Your task to perform on an android device: open app "Venmo" (install if not already installed) Image 0: 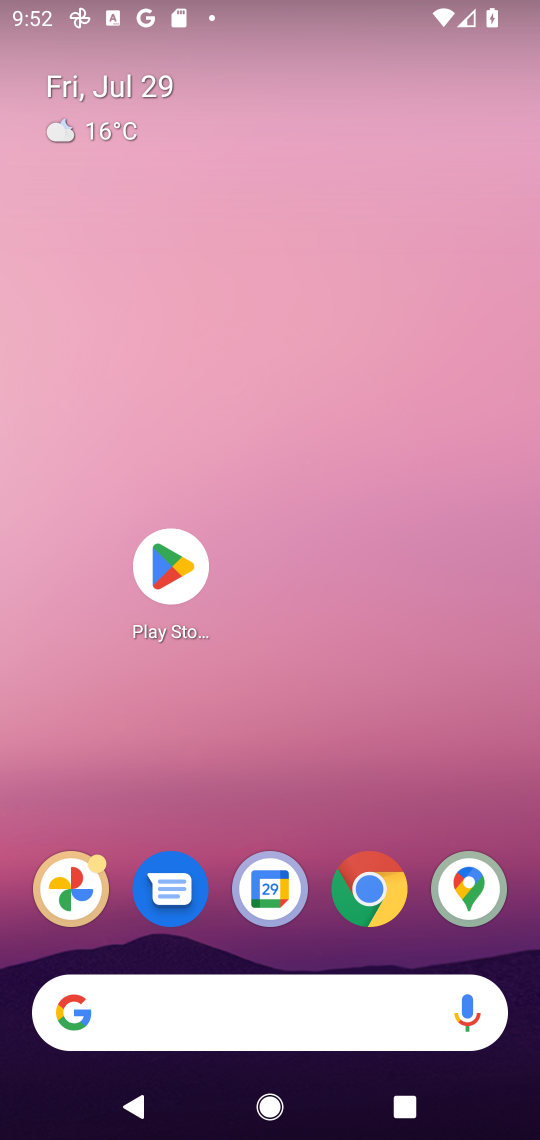
Step 0: click (158, 563)
Your task to perform on an android device: open app "Venmo" (install if not already installed) Image 1: 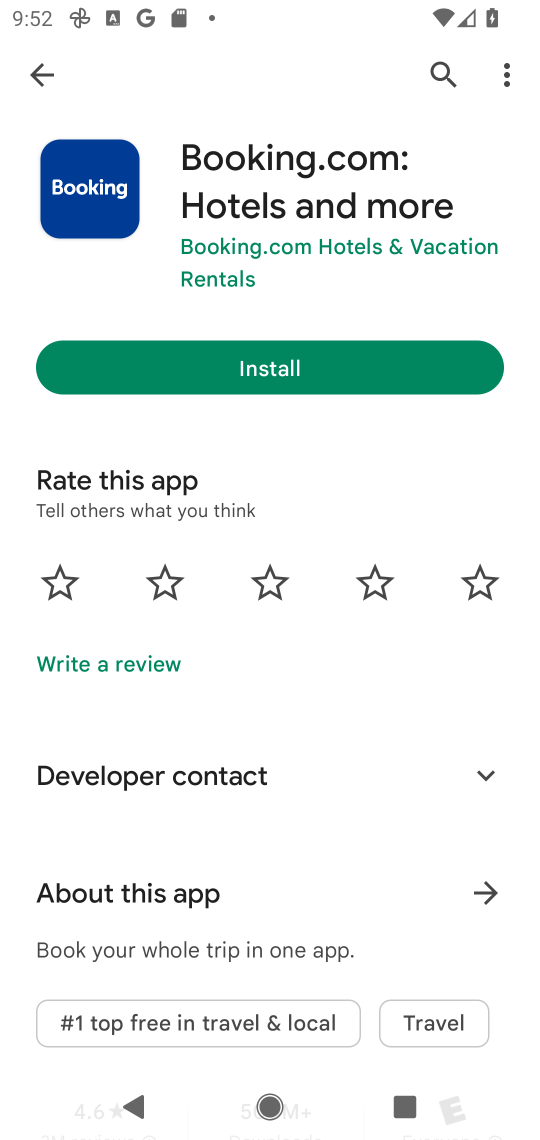
Step 1: click (434, 71)
Your task to perform on an android device: open app "Venmo" (install if not already installed) Image 2: 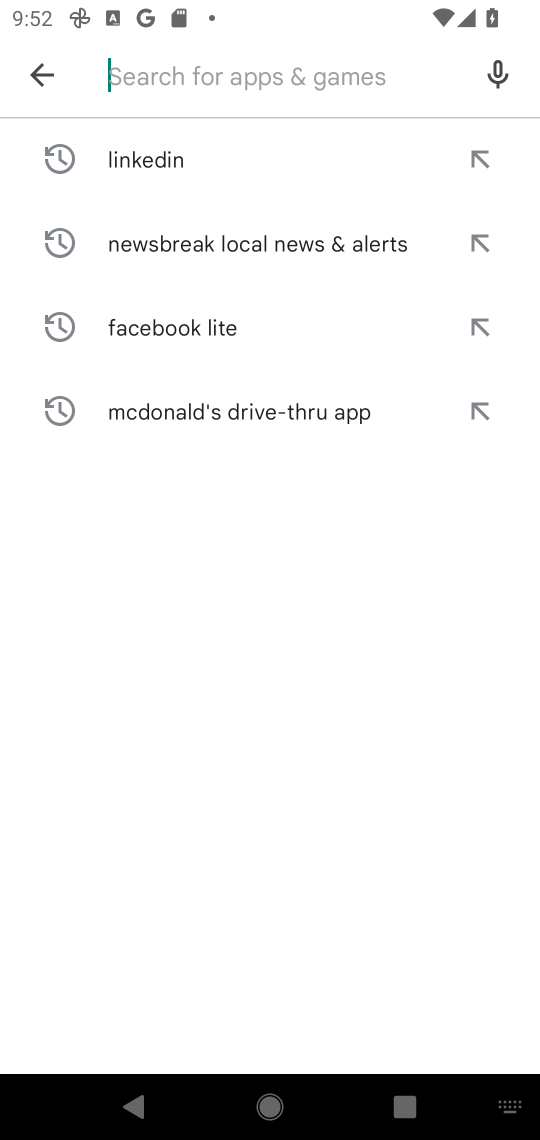
Step 2: type "Venmo"
Your task to perform on an android device: open app "Venmo" (install if not already installed) Image 3: 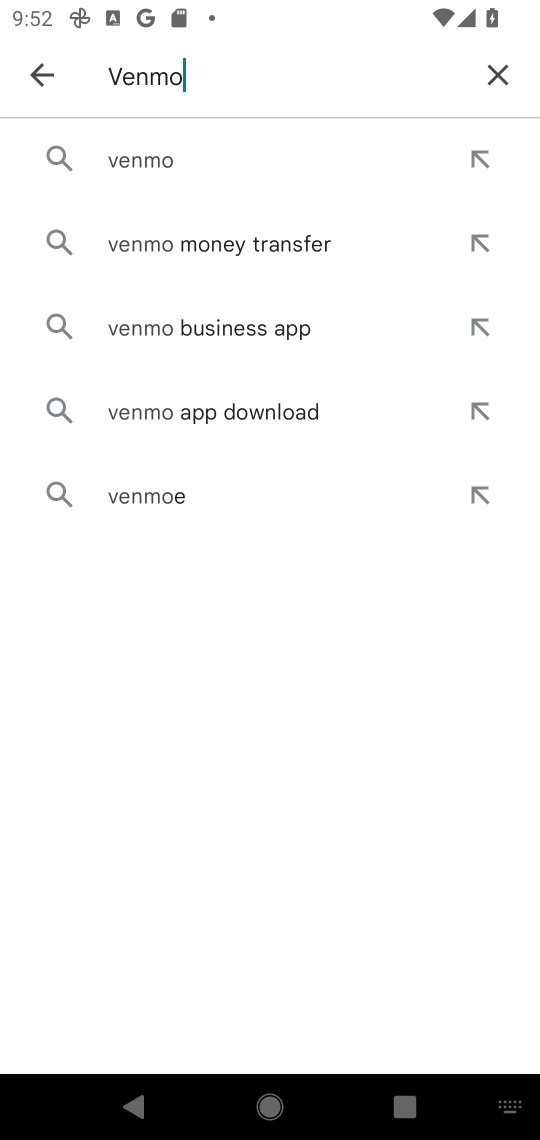
Step 3: click (166, 153)
Your task to perform on an android device: open app "Venmo" (install if not already installed) Image 4: 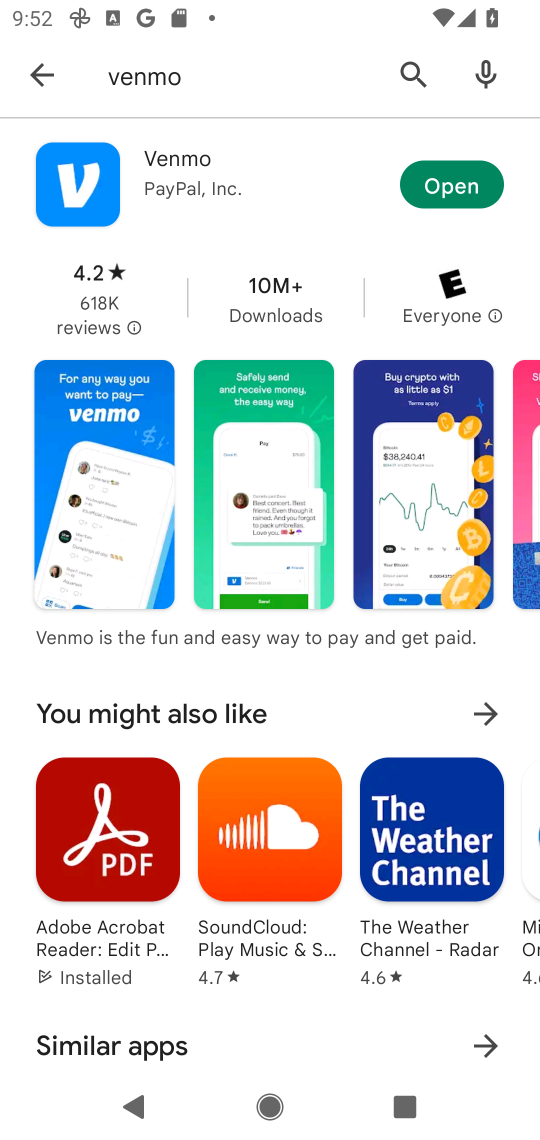
Step 4: click (440, 181)
Your task to perform on an android device: open app "Venmo" (install if not already installed) Image 5: 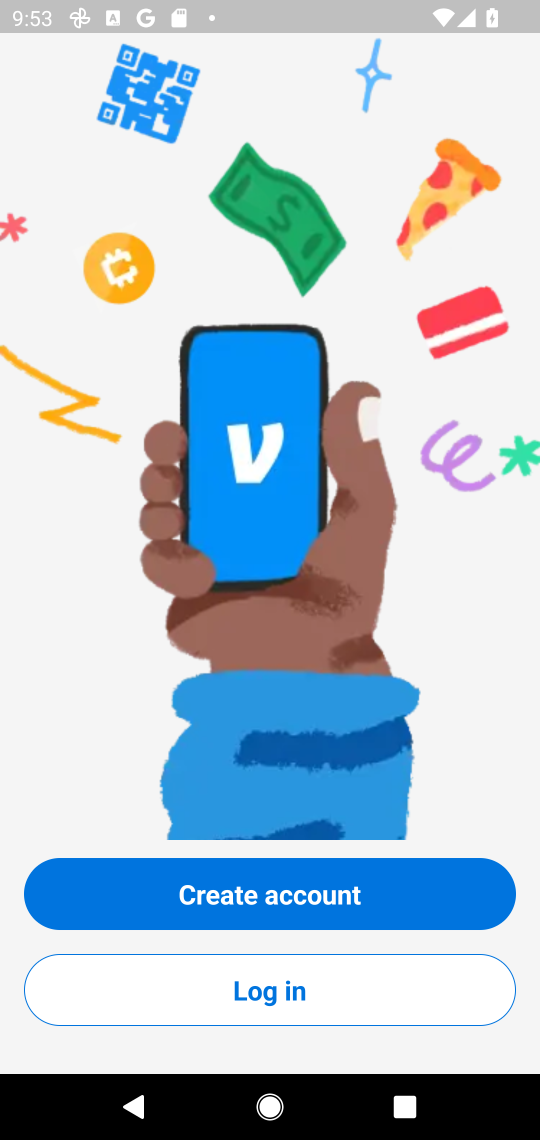
Step 5: task complete